Your task to perform on an android device: create a new album in the google photos Image 0: 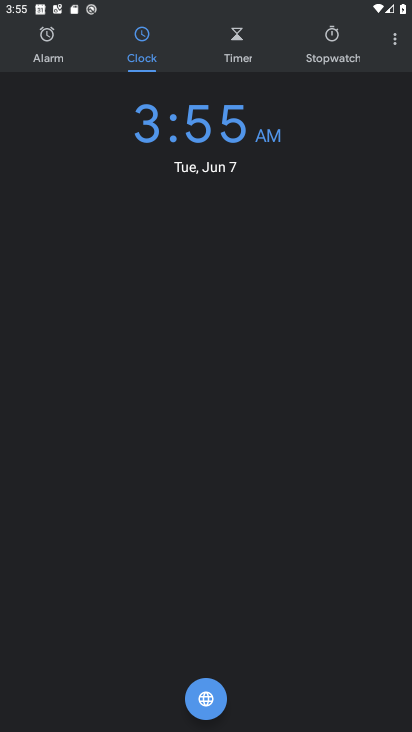
Step 0: press home button
Your task to perform on an android device: create a new album in the google photos Image 1: 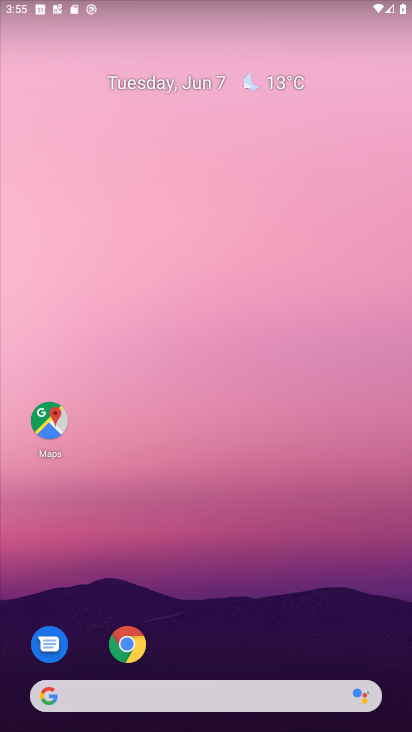
Step 1: drag from (356, 656) to (407, 221)
Your task to perform on an android device: create a new album in the google photos Image 2: 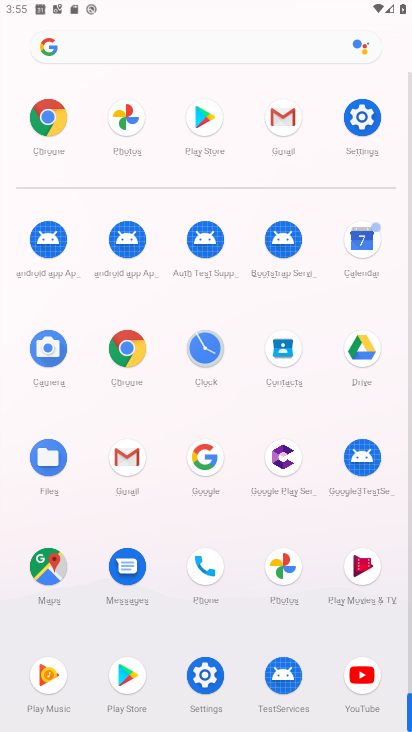
Step 2: click (287, 565)
Your task to perform on an android device: create a new album in the google photos Image 3: 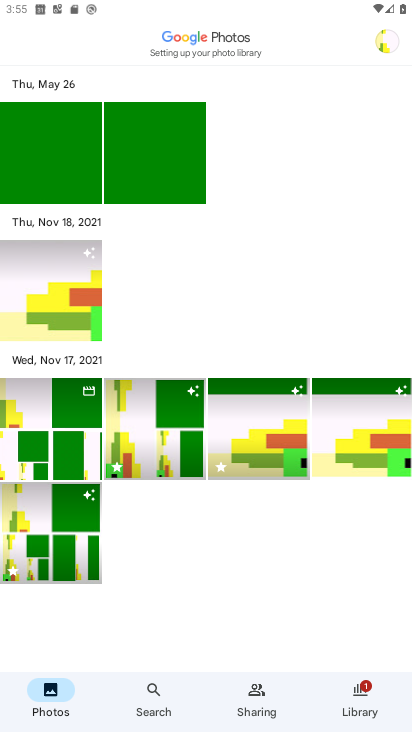
Step 3: click (362, 699)
Your task to perform on an android device: create a new album in the google photos Image 4: 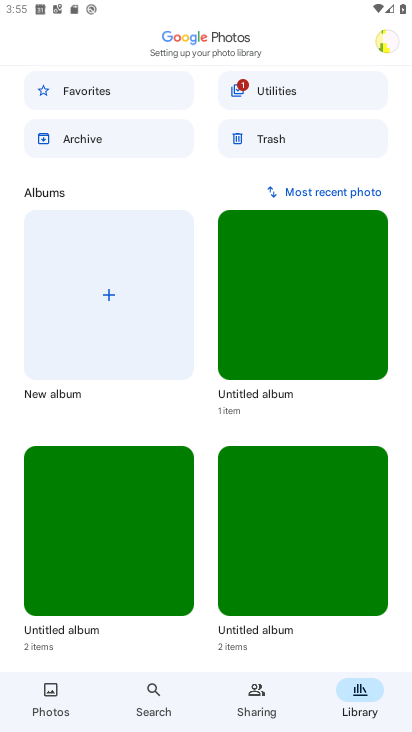
Step 4: click (87, 306)
Your task to perform on an android device: create a new album in the google photos Image 5: 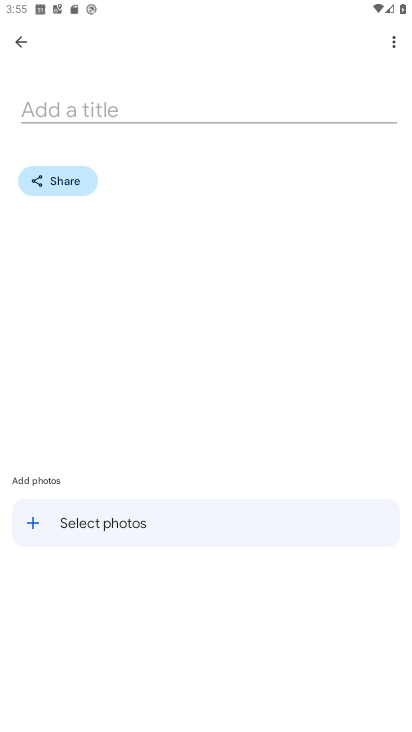
Step 5: click (111, 101)
Your task to perform on an android device: create a new album in the google photos Image 6: 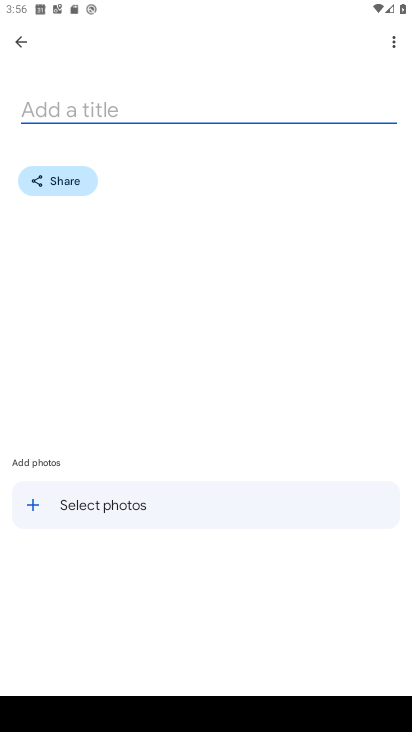
Step 6: type "fav"
Your task to perform on an android device: create a new album in the google photos Image 7: 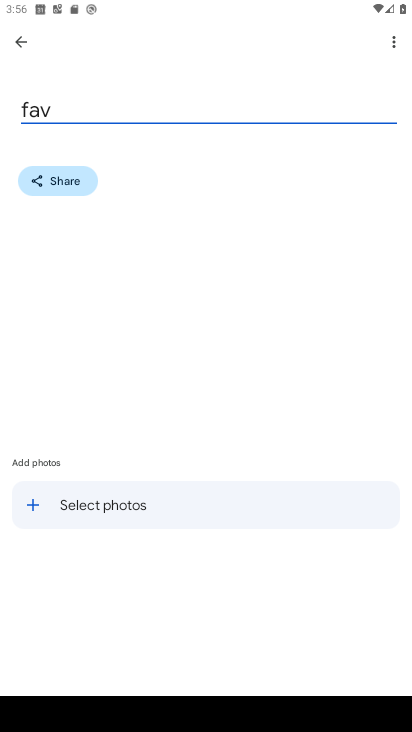
Step 7: click (97, 507)
Your task to perform on an android device: create a new album in the google photos Image 8: 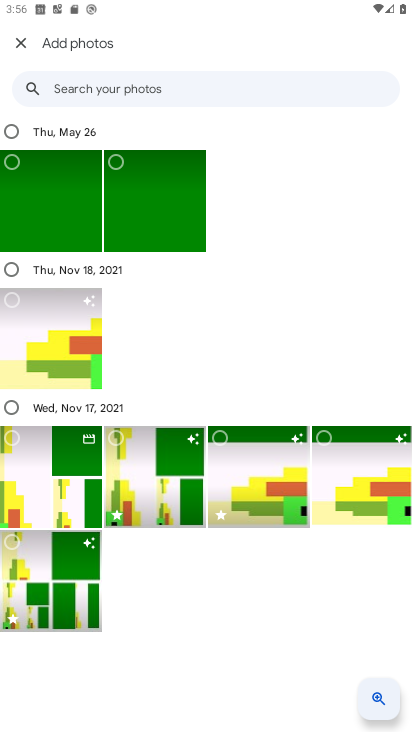
Step 8: click (2, 208)
Your task to perform on an android device: create a new album in the google photos Image 9: 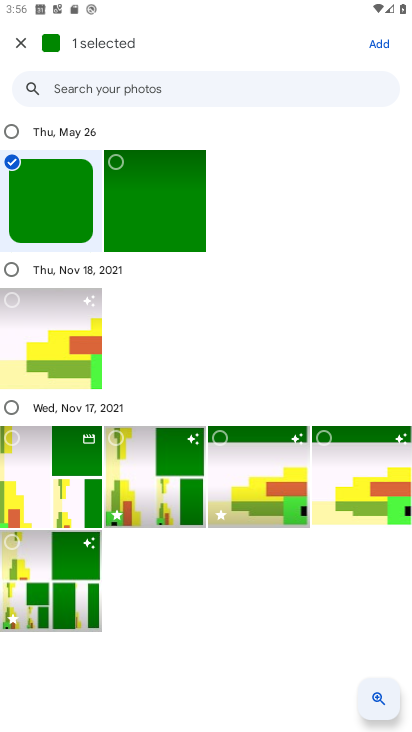
Step 9: click (165, 202)
Your task to perform on an android device: create a new album in the google photos Image 10: 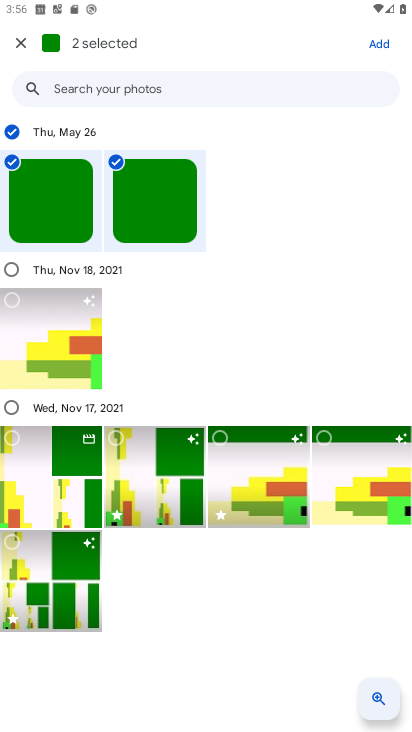
Step 10: click (382, 45)
Your task to perform on an android device: create a new album in the google photos Image 11: 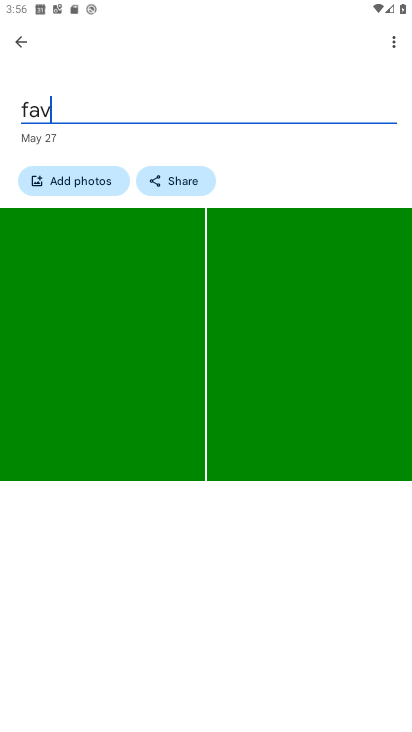
Step 11: task complete